Your task to perform on an android device: Open Google Image 0: 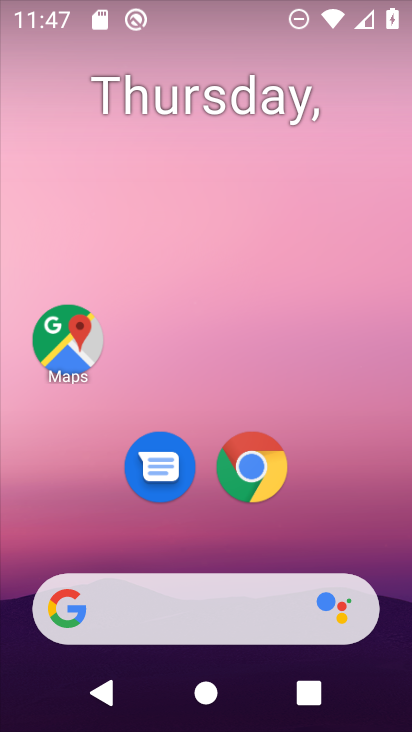
Step 0: drag from (343, 564) to (397, 5)
Your task to perform on an android device: Open Google Image 1: 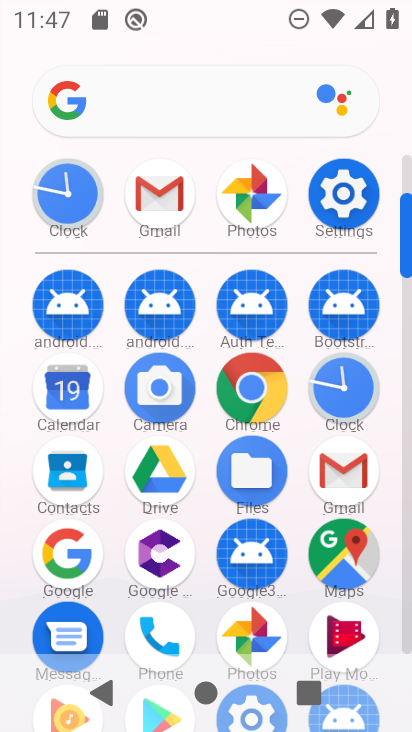
Step 1: click (64, 564)
Your task to perform on an android device: Open Google Image 2: 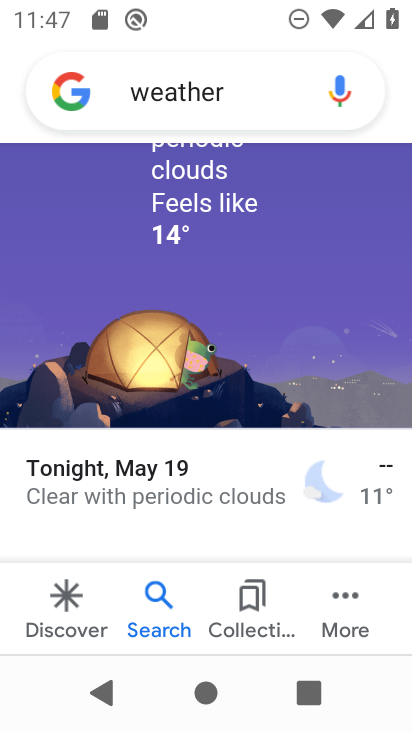
Step 2: task complete